Your task to perform on an android device: snooze an email in the gmail app Image 0: 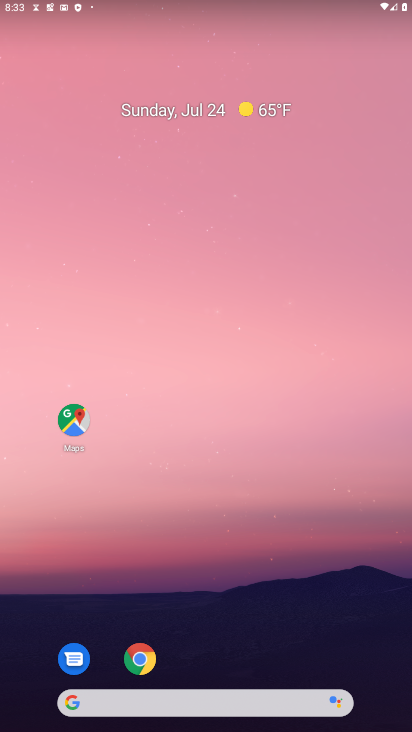
Step 0: drag from (297, 678) to (303, 22)
Your task to perform on an android device: snooze an email in the gmail app Image 1: 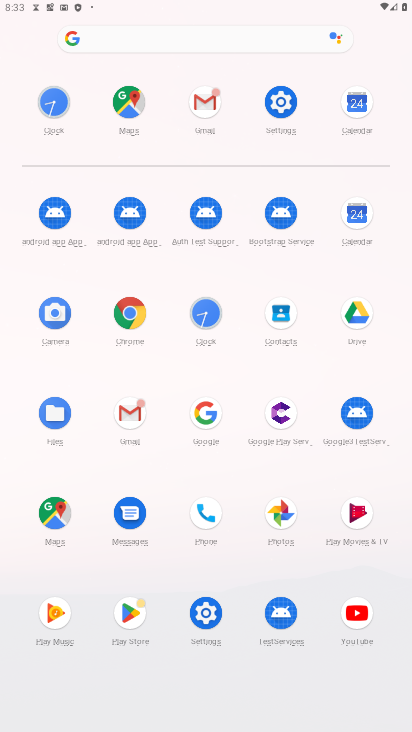
Step 1: click (201, 102)
Your task to perform on an android device: snooze an email in the gmail app Image 2: 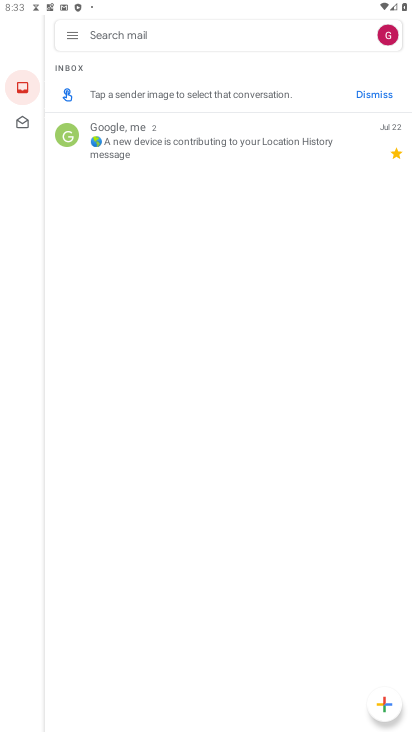
Step 2: click (158, 135)
Your task to perform on an android device: snooze an email in the gmail app Image 3: 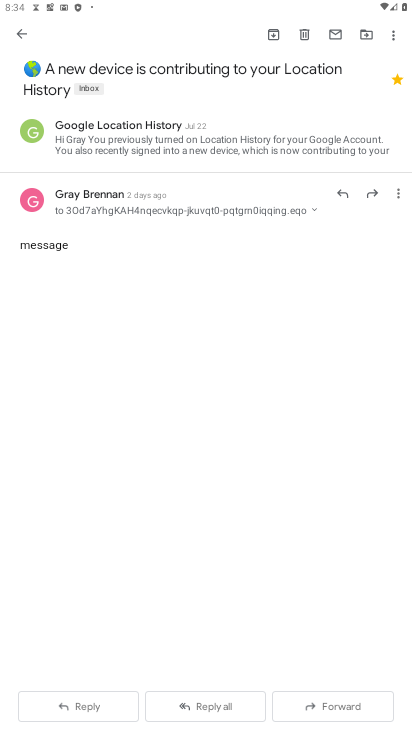
Step 3: click (400, 193)
Your task to perform on an android device: snooze an email in the gmail app Image 4: 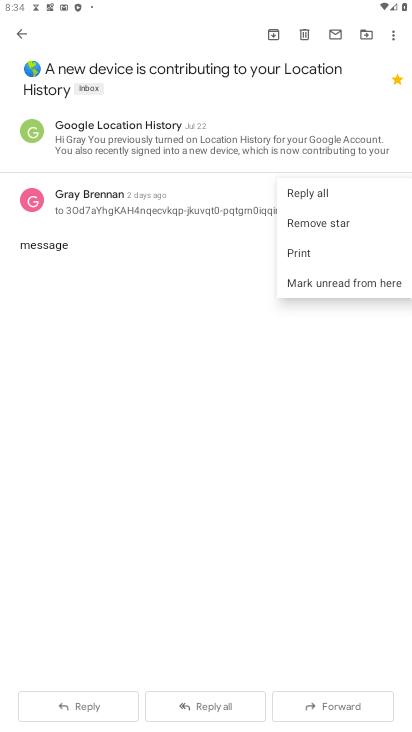
Step 4: click (395, 29)
Your task to perform on an android device: snooze an email in the gmail app Image 5: 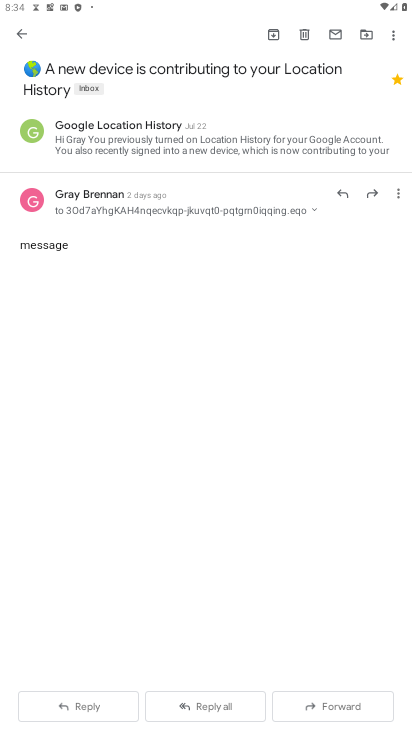
Step 5: click (393, 36)
Your task to perform on an android device: snooze an email in the gmail app Image 6: 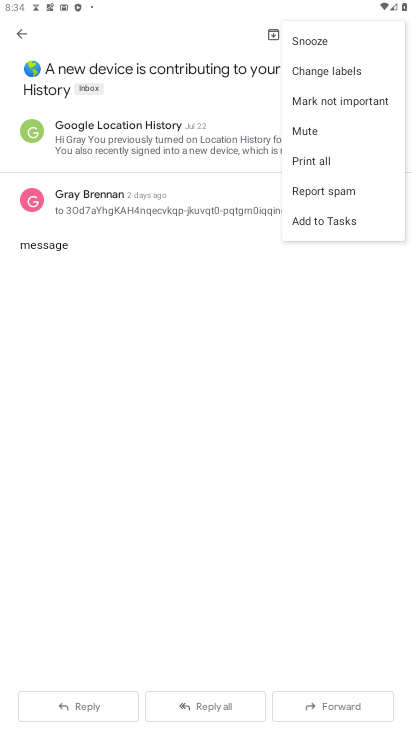
Step 6: click (312, 42)
Your task to perform on an android device: snooze an email in the gmail app Image 7: 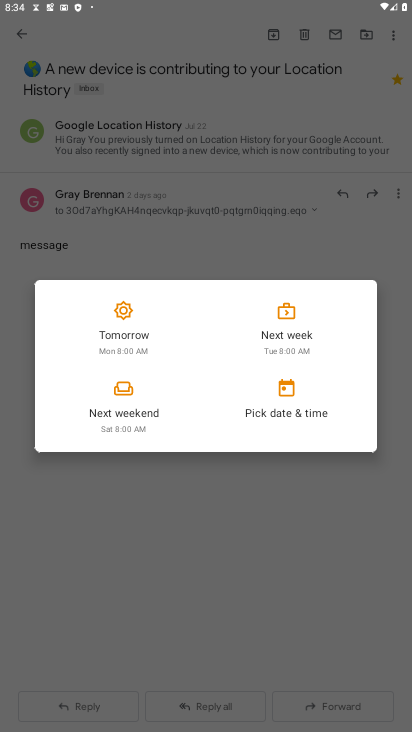
Step 7: click (122, 345)
Your task to perform on an android device: snooze an email in the gmail app Image 8: 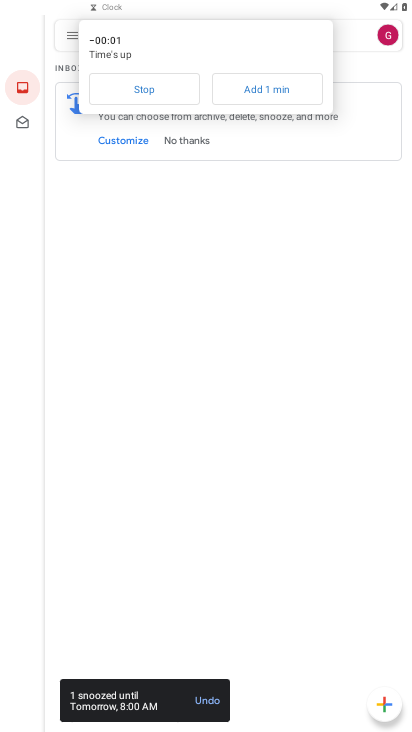
Step 8: task complete